Your task to perform on an android device: toggle notification dots Image 0: 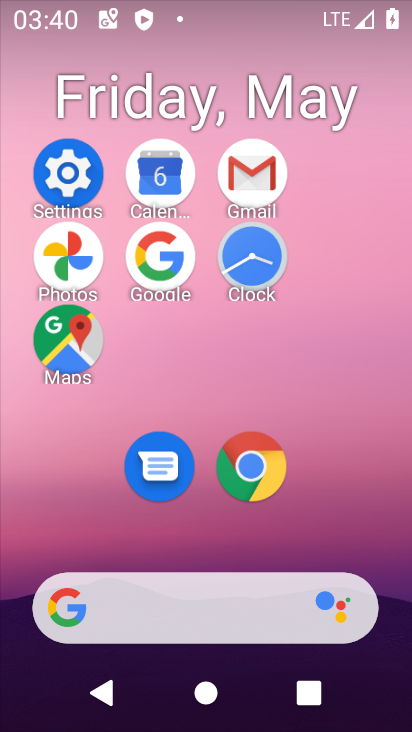
Step 0: click (69, 158)
Your task to perform on an android device: toggle notification dots Image 1: 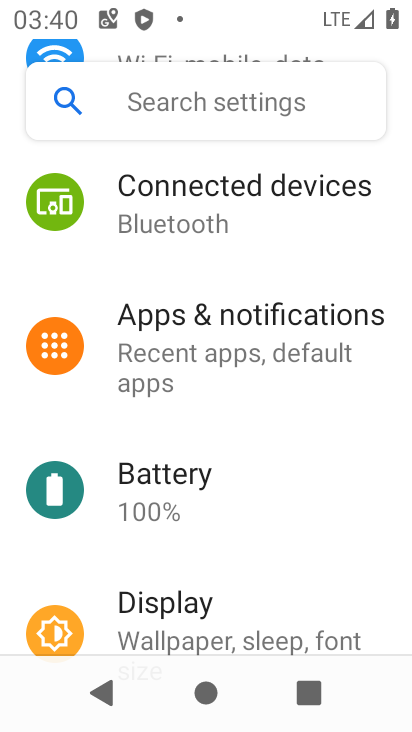
Step 1: click (139, 348)
Your task to perform on an android device: toggle notification dots Image 2: 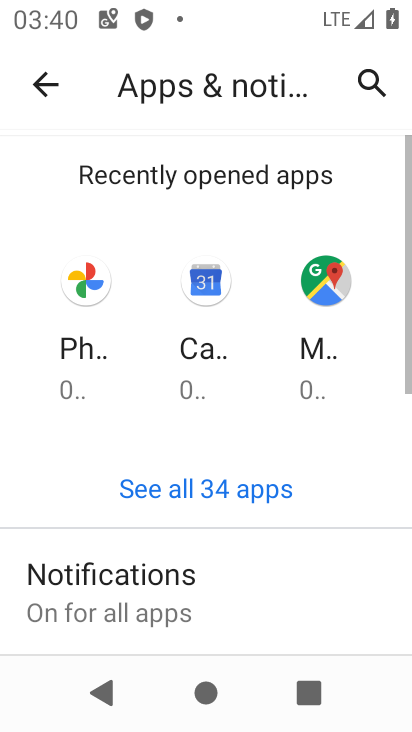
Step 2: click (147, 576)
Your task to perform on an android device: toggle notification dots Image 3: 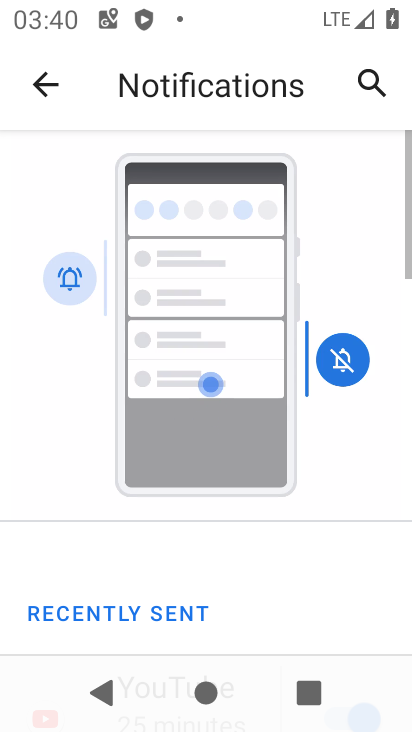
Step 3: drag from (275, 576) to (220, 137)
Your task to perform on an android device: toggle notification dots Image 4: 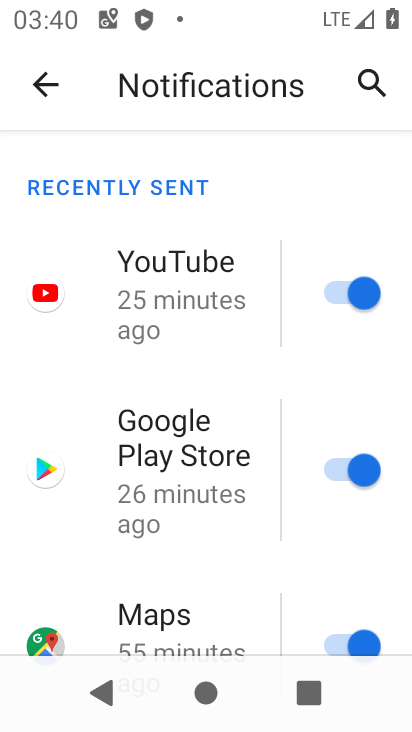
Step 4: drag from (226, 599) to (220, 83)
Your task to perform on an android device: toggle notification dots Image 5: 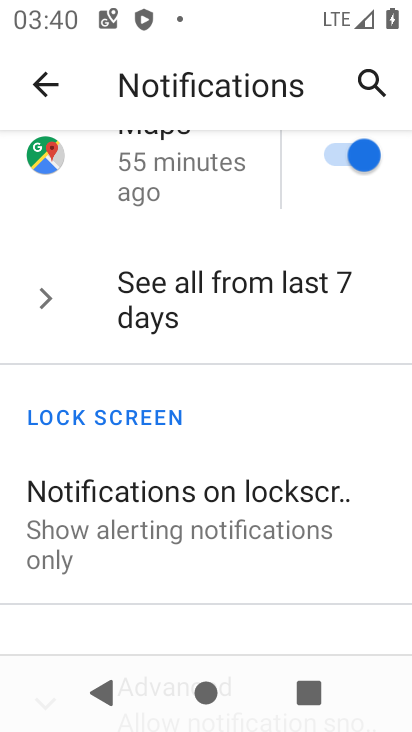
Step 5: drag from (196, 540) to (164, 180)
Your task to perform on an android device: toggle notification dots Image 6: 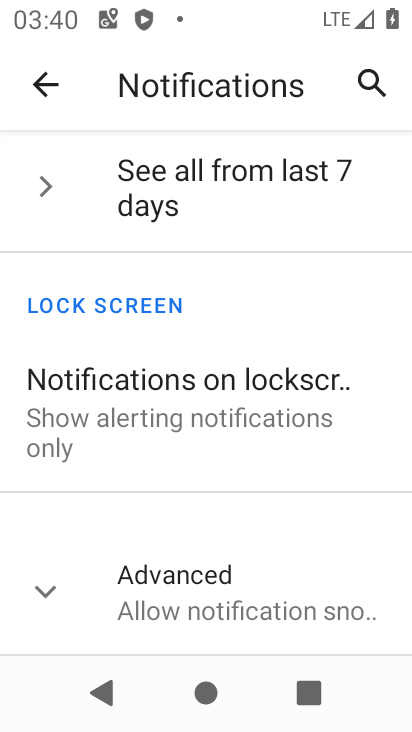
Step 6: click (158, 588)
Your task to perform on an android device: toggle notification dots Image 7: 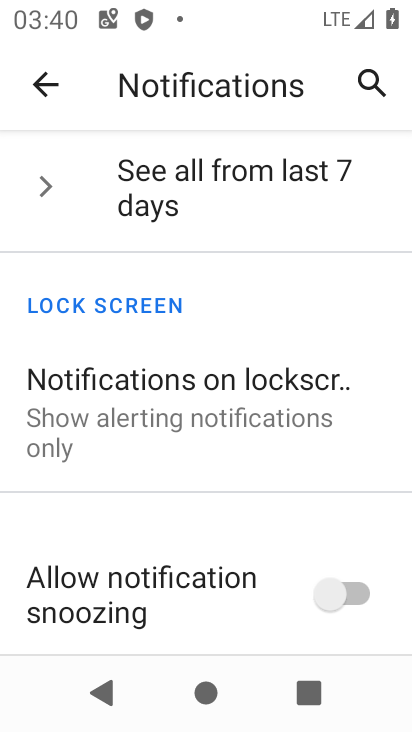
Step 7: drag from (261, 556) to (293, 90)
Your task to perform on an android device: toggle notification dots Image 8: 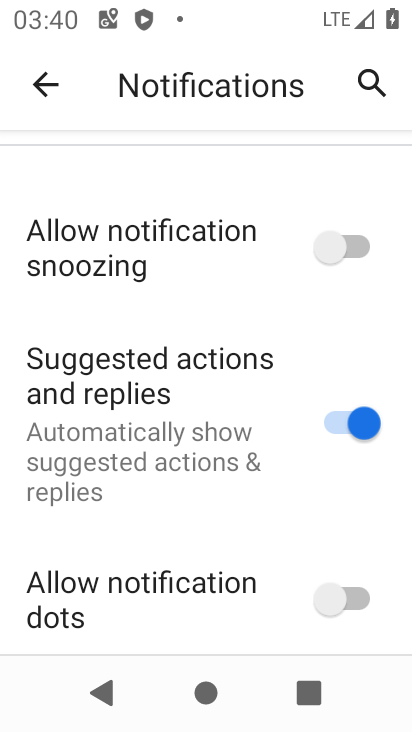
Step 8: click (346, 232)
Your task to perform on an android device: toggle notification dots Image 9: 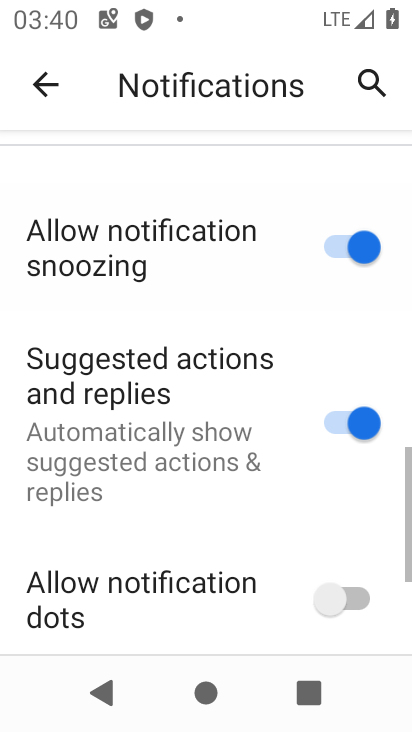
Step 9: click (362, 429)
Your task to perform on an android device: toggle notification dots Image 10: 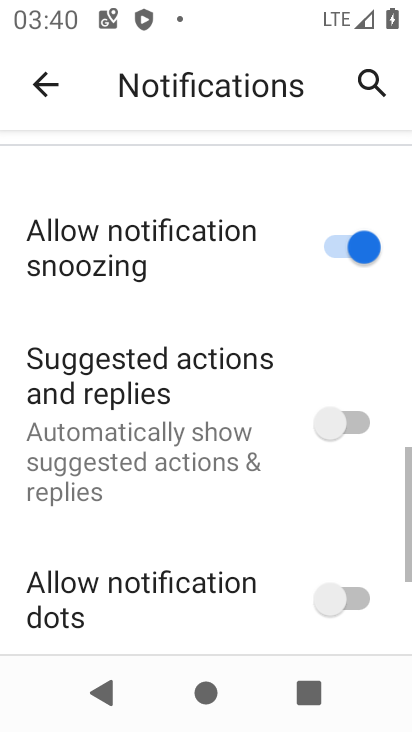
Step 10: click (328, 593)
Your task to perform on an android device: toggle notification dots Image 11: 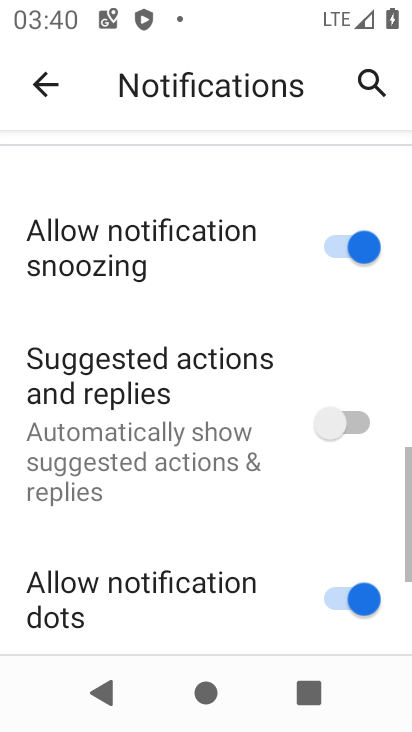
Step 11: task complete